Your task to perform on an android device: turn off javascript in the chrome app Image 0: 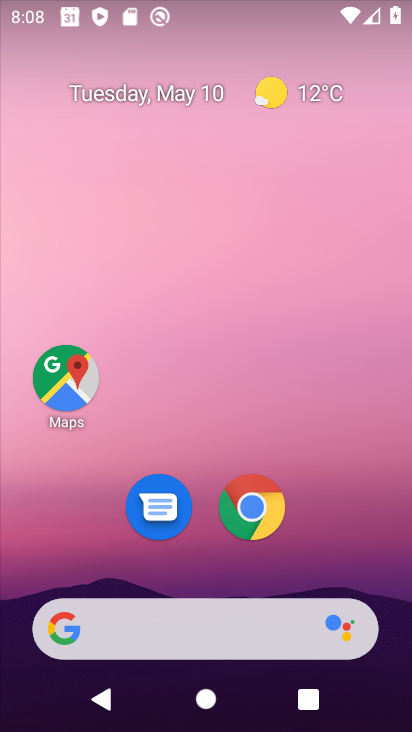
Step 0: click (270, 509)
Your task to perform on an android device: turn off javascript in the chrome app Image 1: 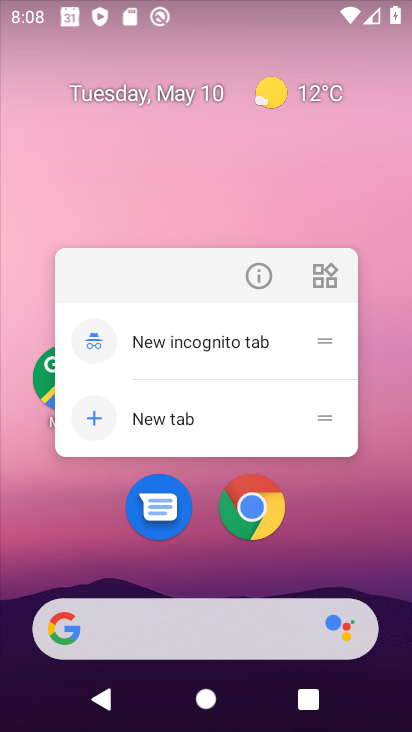
Step 1: click (252, 509)
Your task to perform on an android device: turn off javascript in the chrome app Image 2: 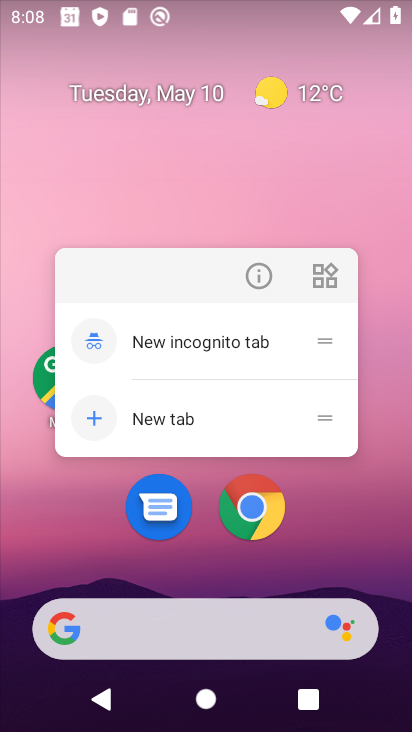
Step 2: click (255, 530)
Your task to perform on an android device: turn off javascript in the chrome app Image 3: 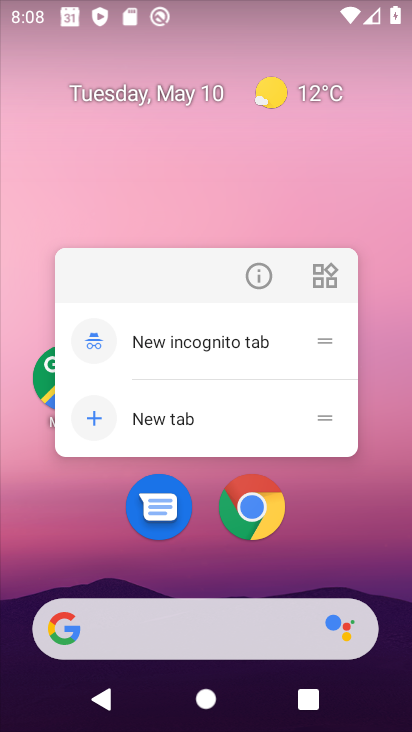
Step 3: click (264, 518)
Your task to perform on an android device: turn off javascript in the chrome app Image 4: 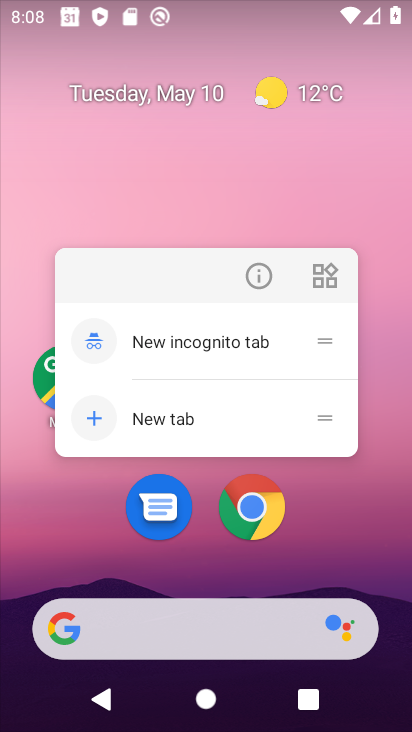
Step 4: click (257, 504)
Your task to perform on an android device: turn off javascript in the chrome app Image 5: 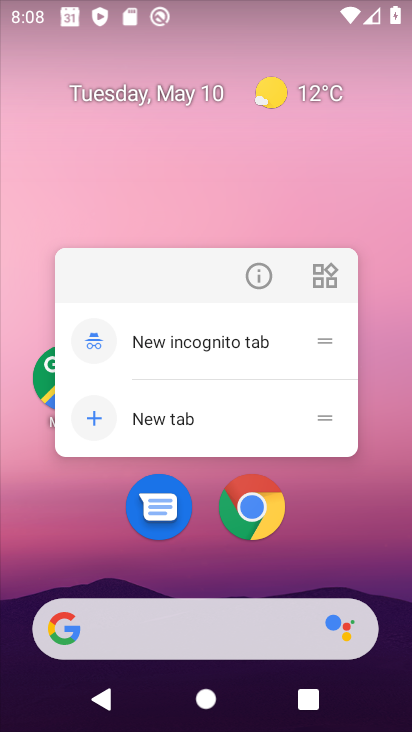
Step 5: click (248, 505)
Your task to perform on an android device: turn off javascript in the chrome app Image 6: 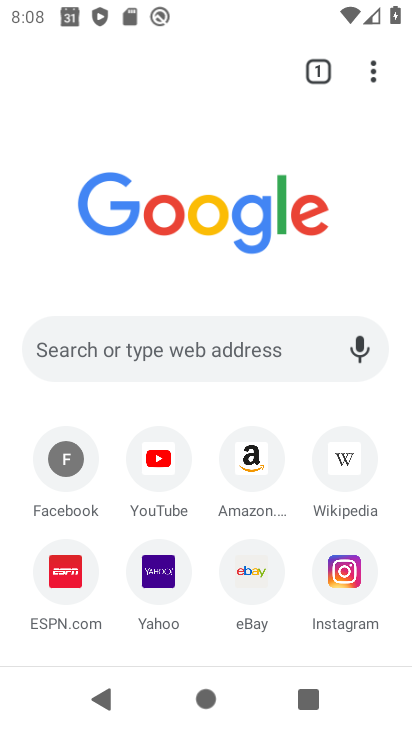
Step 6: drag from (383, 77) to (235, 523)
Your task to perform on an android device: turn off javascript in the chrome app Image 7: 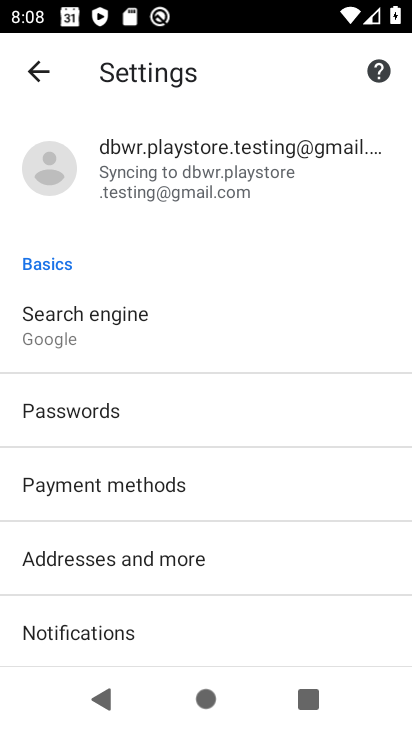
Step 7: drag from (152, 590) to (245, 316)
Your task to perform on an android device: turn off javascript in the chrome app Image 8: 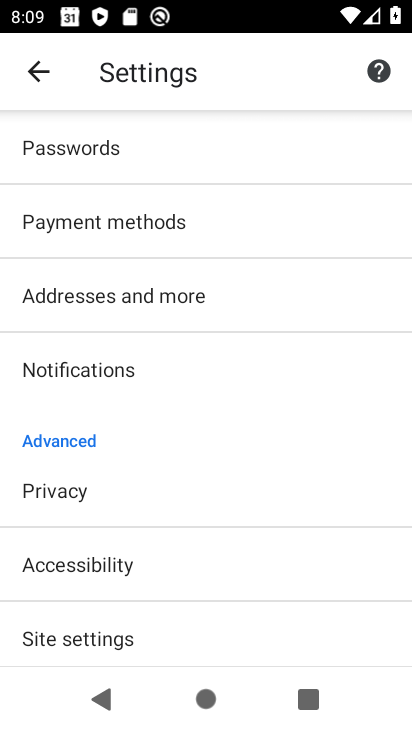
Step 8: drag from (129, 590) to (175, 450)
Your task to perform on an android device: turn off javascript in the chrome app Image 9: 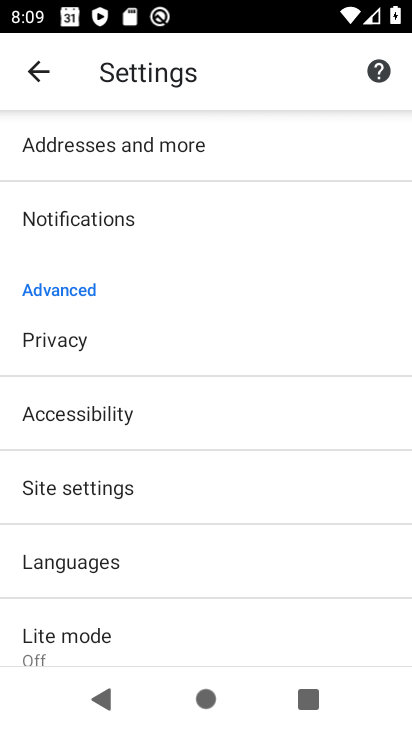
Step 9: click (128, 471)
Your task to perform on an android device: turn off javascript in the chrome app Image 10: 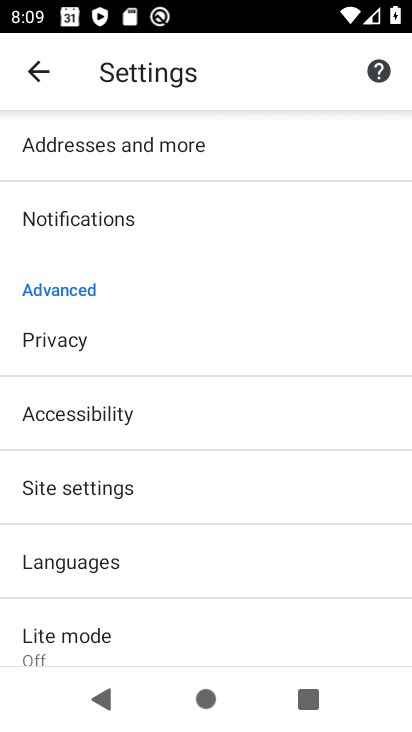
Step 10: click (126, 480)
Your task to perform on an android device: turn off javascript in the chrome app Image 11: 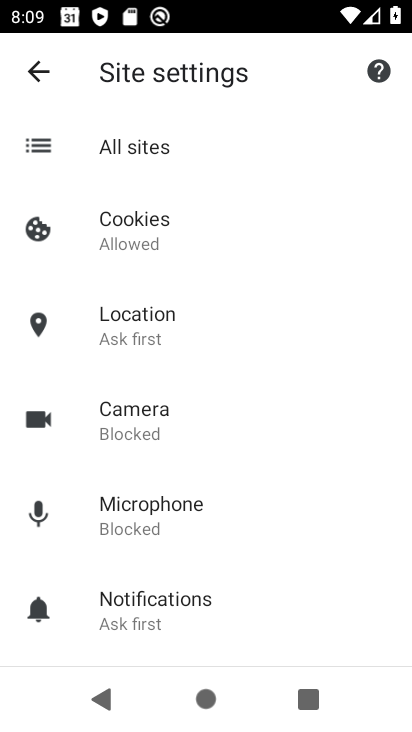
Step 11: drag from (188, 561) to (259, 331)
Your task to perform on an android device: turn off javascript in the chrome app Image 12: 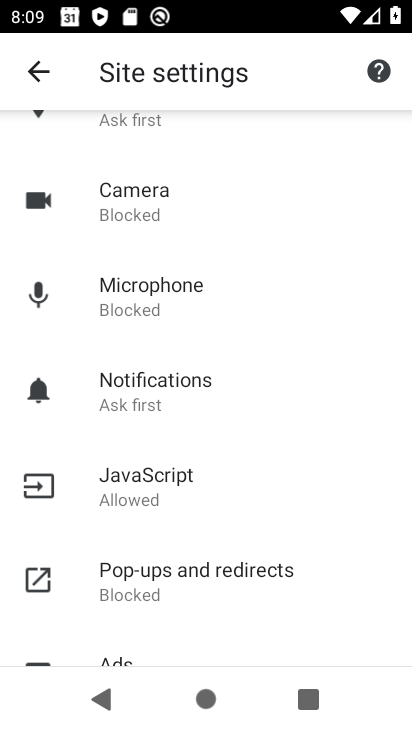
Step 12: click (207, 477)
Your task to perform on an android device: turn off javascript in the chrome app Image 13: 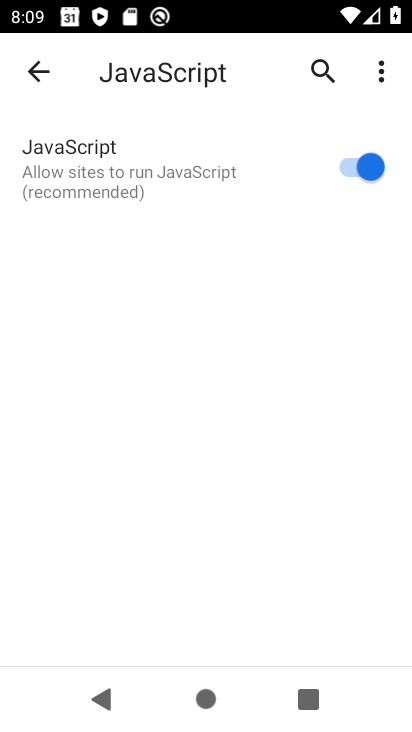
Step 13: click (349, 164)
Your task to perform on an android device: turn off javascript in the chrome app Image 14: 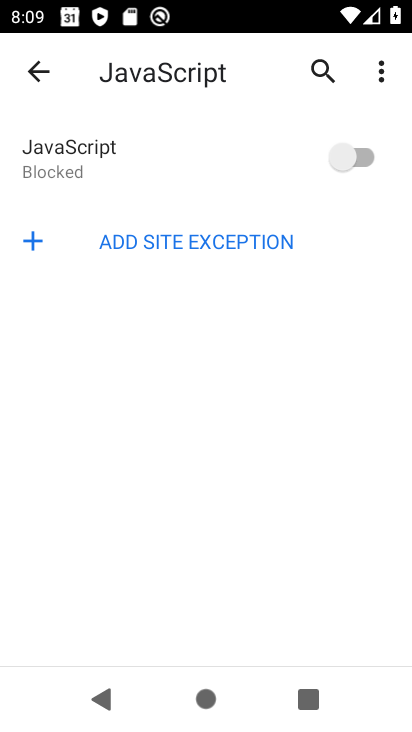
Step 14: task complete